Your task to perform on an android device: Search for Italian restaurants on Maps Image 0: 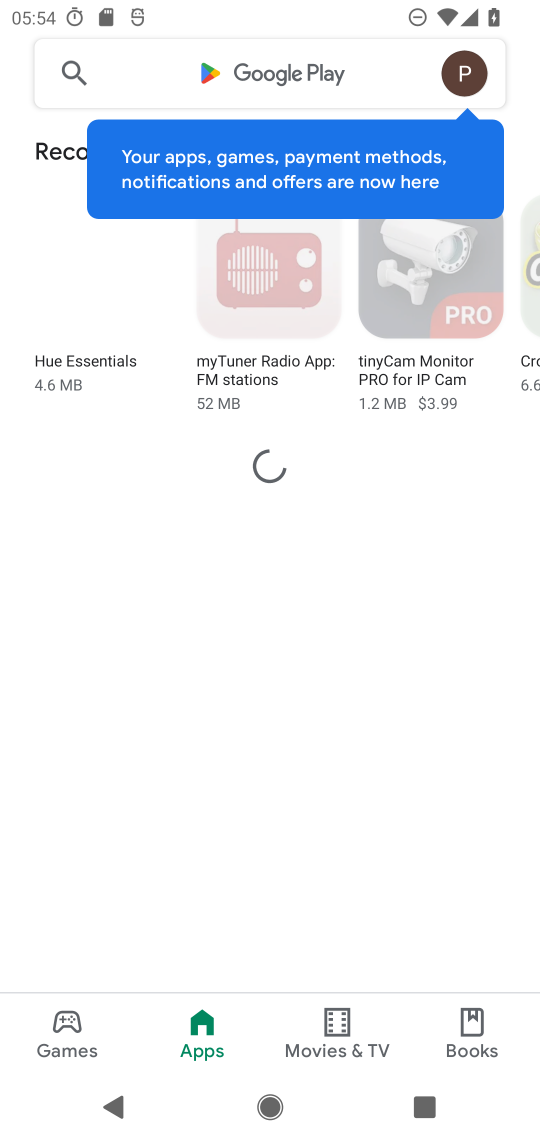
Step 0: press home button
Your task to perform on an android device: Search for Italian restaurants on Maps Image 1: 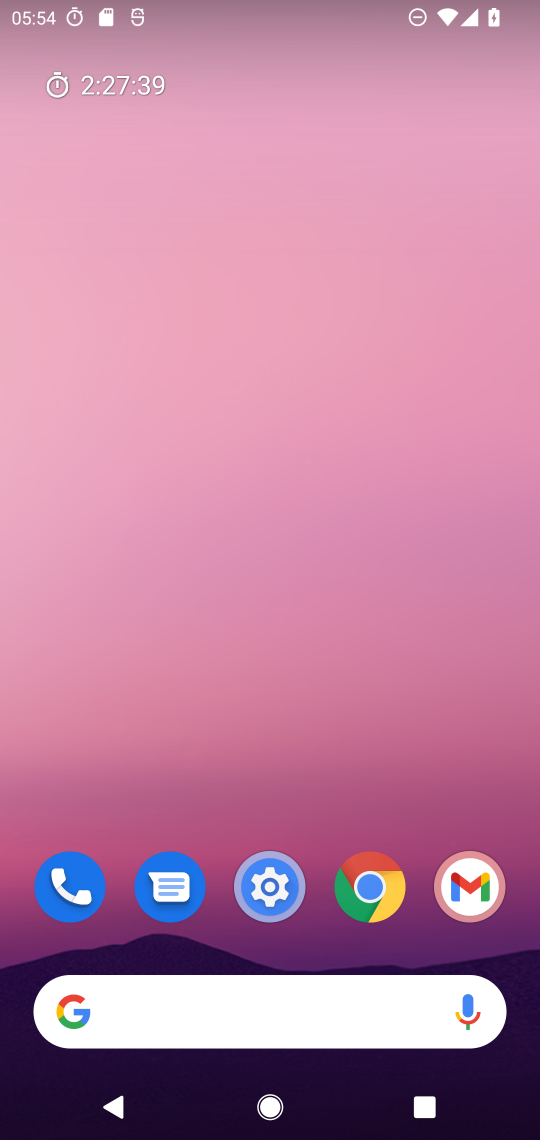
Step 1: drag from (407, 815) to (450, 310)
Your task to perform on an android device: Search for Italian restaurants on Maps Image 2: 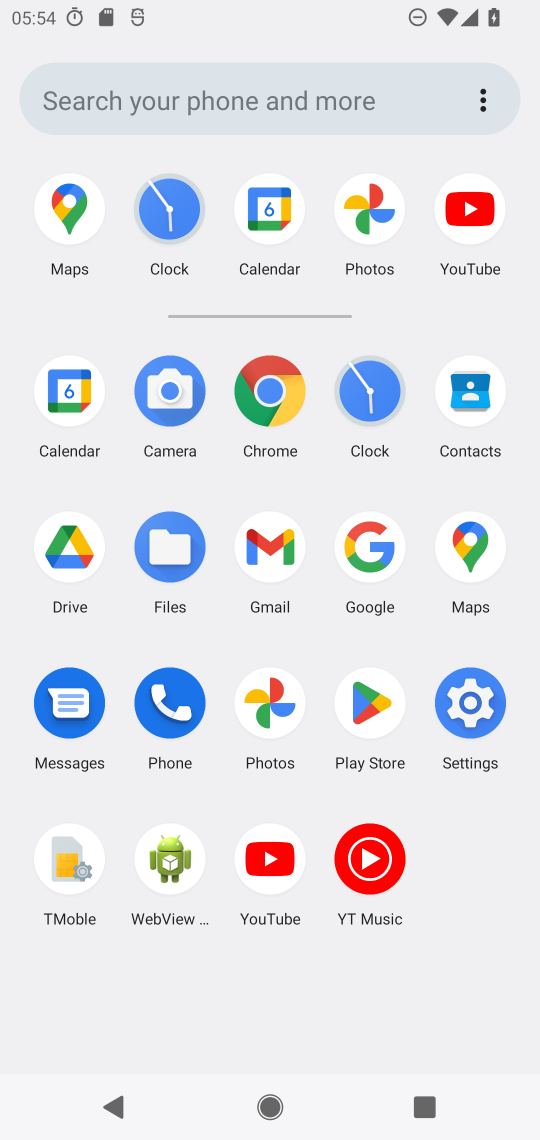
Step 2: click (466, 555)
Your task to perform on an android device: Search for Italian restaurants on Maps Image 3: 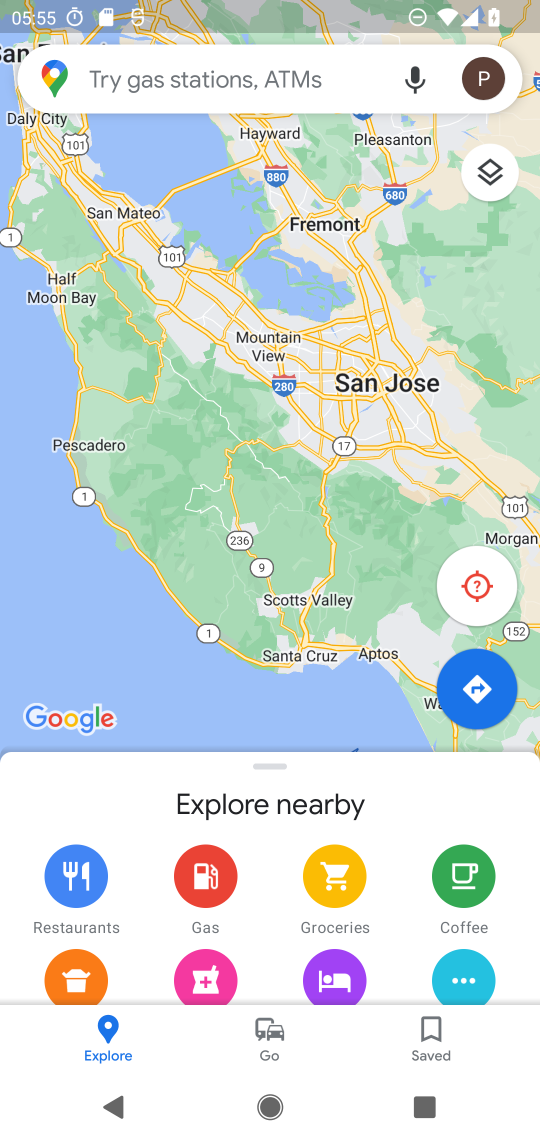
Step 3: click (249, 76)
Your task to perform on an android device: Search for Italian restaurants on Maps Image 4: 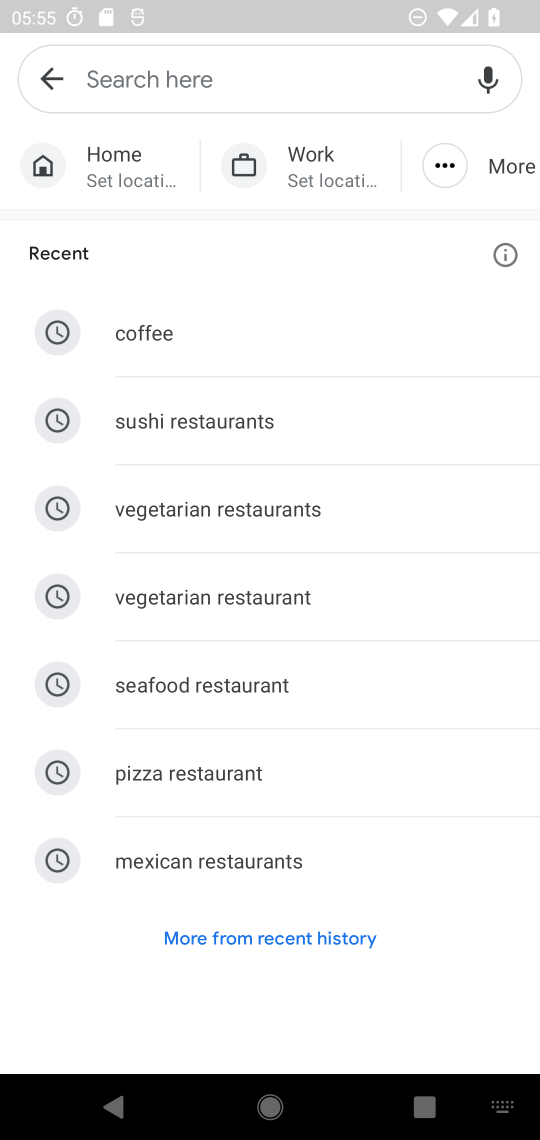
Step 4: type "italian restaurants"
Your task to perform on an android device: Search for Italian restaurants on Maps Image 5: 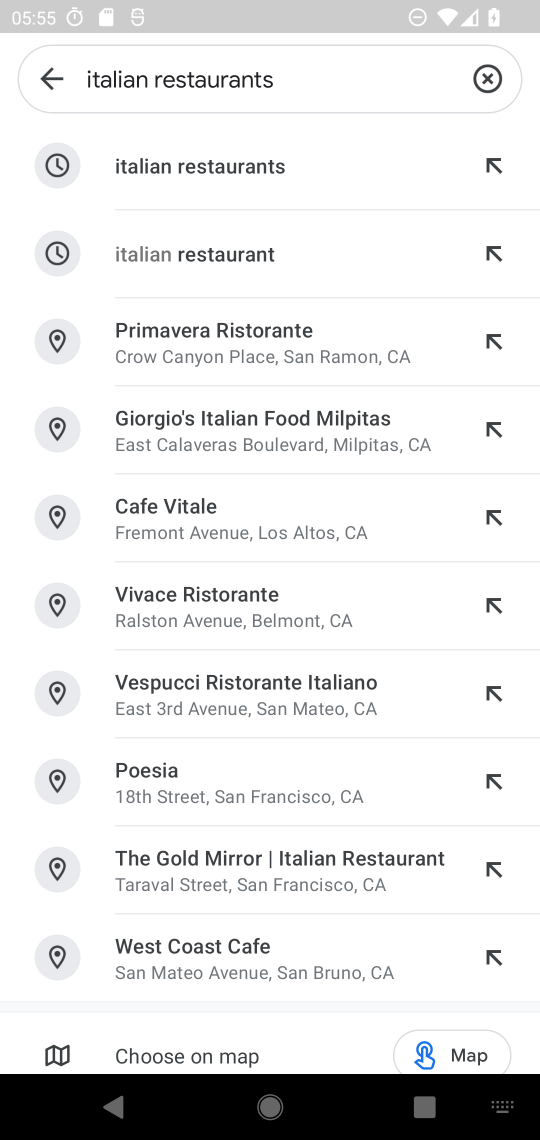
Step 5: click (335, 187)
Your task to perform on an android device: Search for Italian restaurants on Maps Image 6: 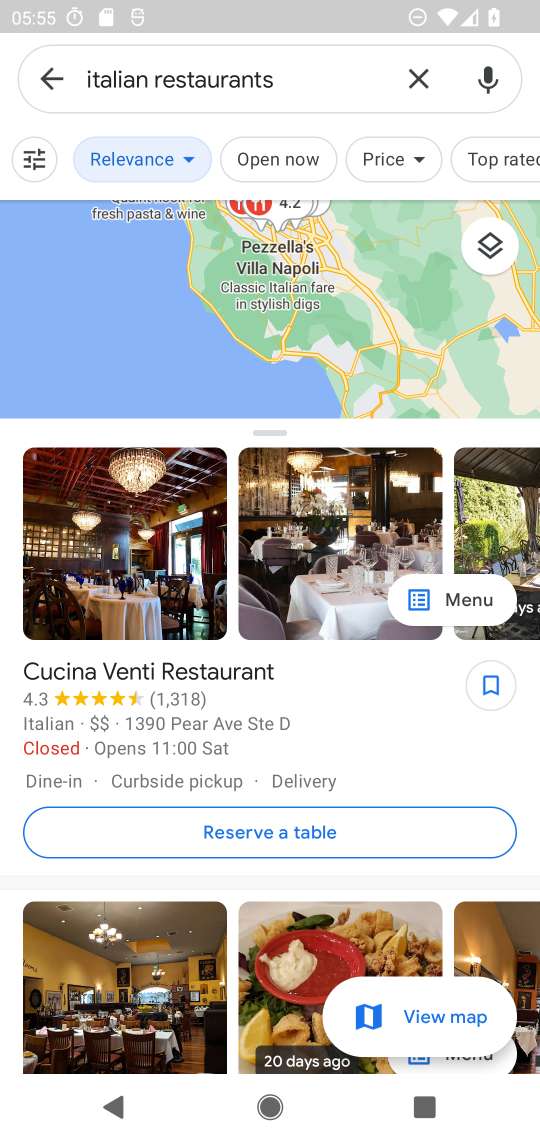
Step 6: task complete